Your task to perform on an android device: toggle translation in the chrome app Image 0: 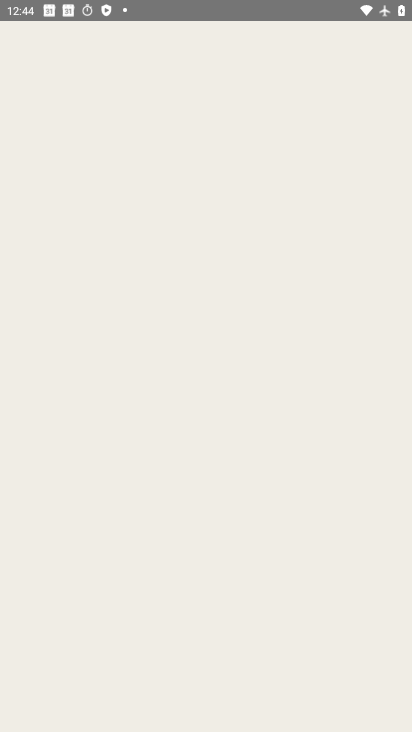
Step 0: press home button
Your task to perform on an android device: toggle translation in the chrome app Image 1: 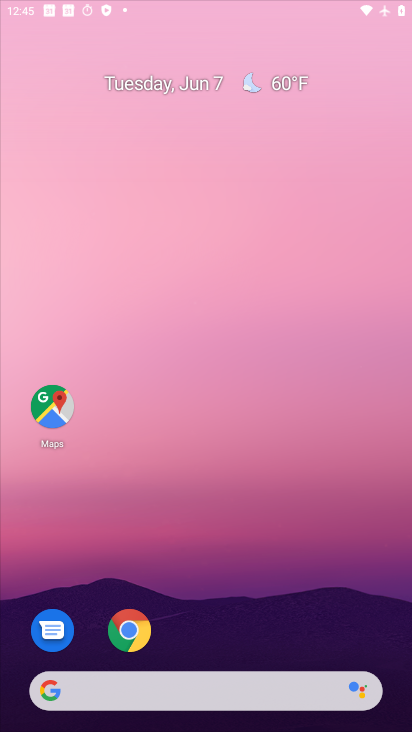
Step 1: drag from (369, 635) to (160, 35)
Your task to perform on an android device: toggle translation in the chrome app Image 2: 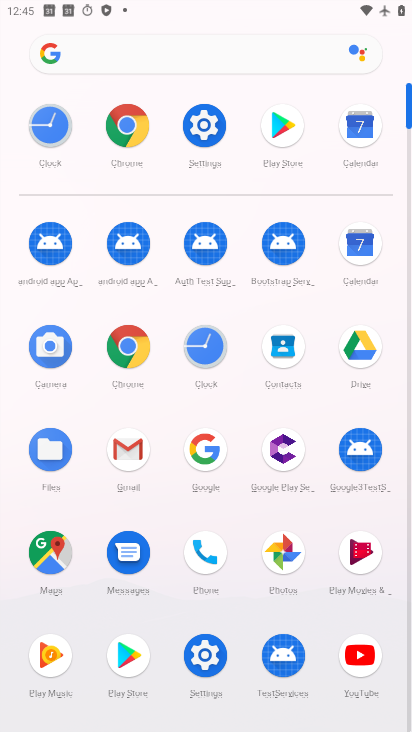
Step 2: click (125, 353)
Your task to perform on an android device: toggle translation in the chrome app Image 3: 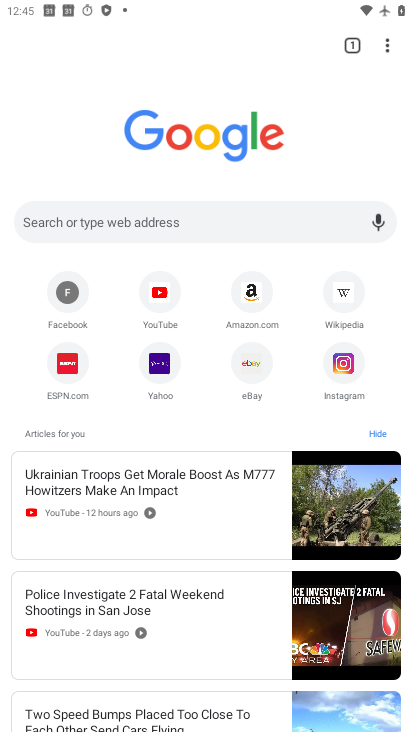
Step 3: click (387, 45)
Your task to perform on an android device: toggle translation in the chrome app Image 4: 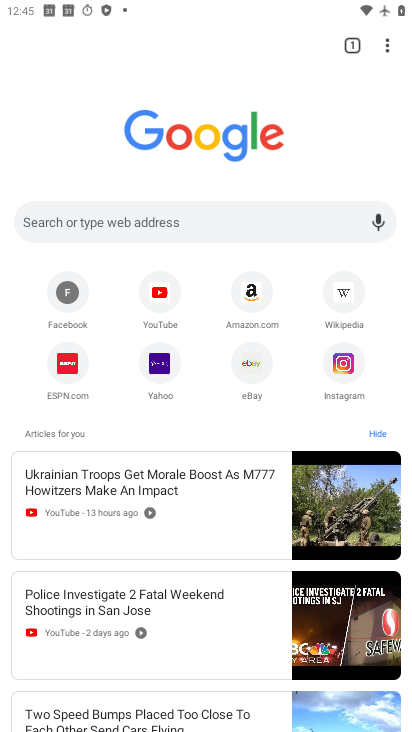
Step 4: click (387, 45)
Your task to perform on an android device: toggle translation in the chrome app Image 5: 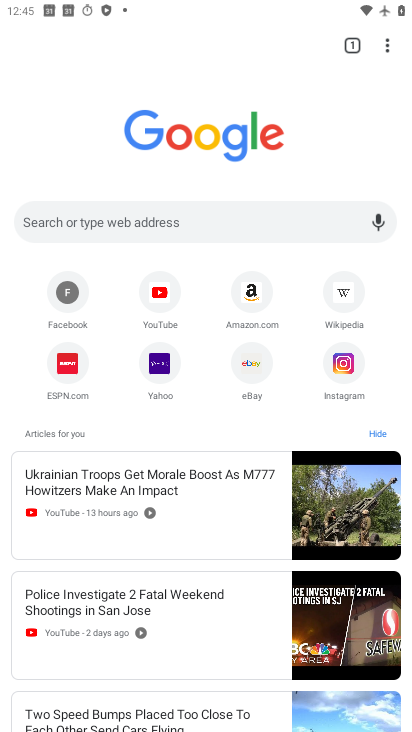
Step 5: click (387, 45)
Your task to perform on an android device: toggle translation in the chrome app Image 6: 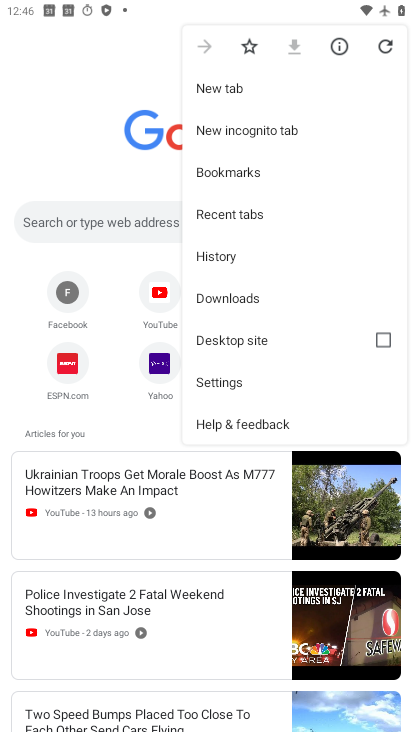
Step 6: click (235, 383)
Your task to perform on an android device: toggle translation in the chrome app Image 7: 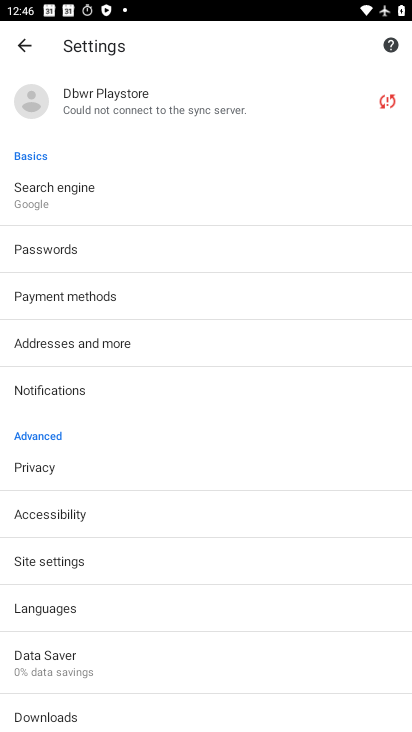
Step 7: click (106, 608)
Your task to perform on an android device: toggle translation in the chrome app Image 8: 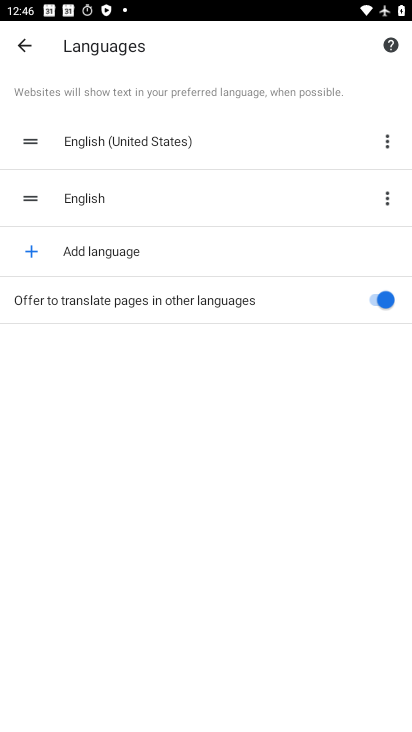
Step 8: click (340, 296)
Your task to perform on an android device: toggle translation in the chrome app Image 9: 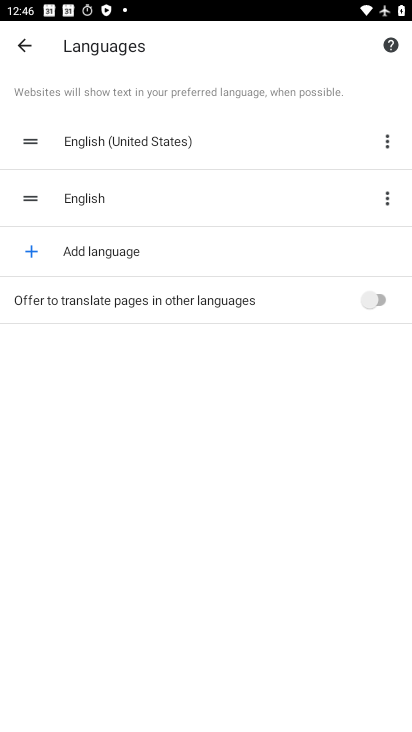
Step 9: task complete